Your task to perform on an android device: Open battery settings Image 0: 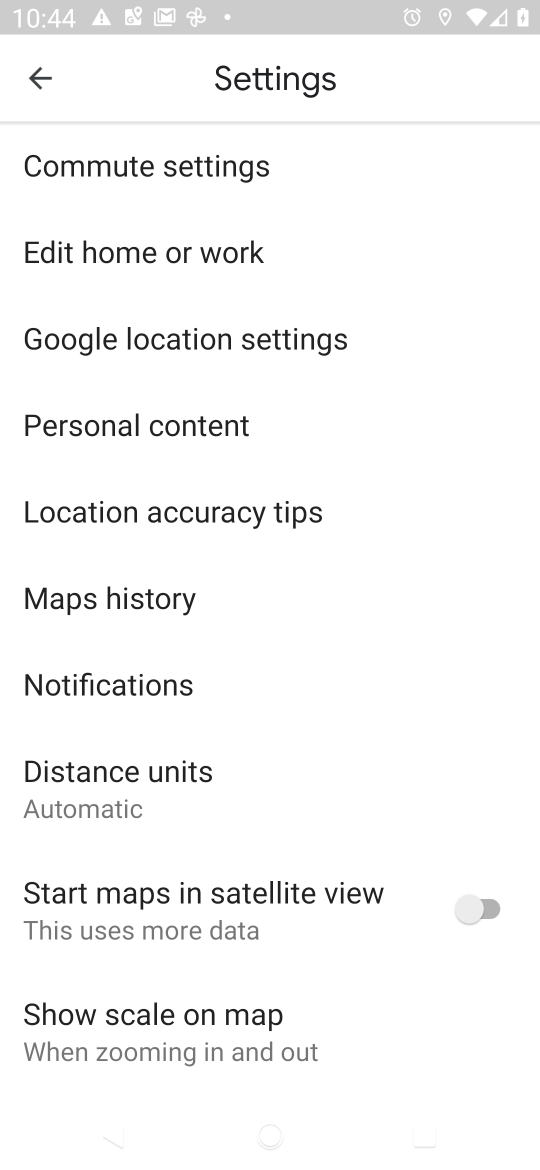
Step 0: press home button
Your task to perform on an android device: Open battery settings Image 1: 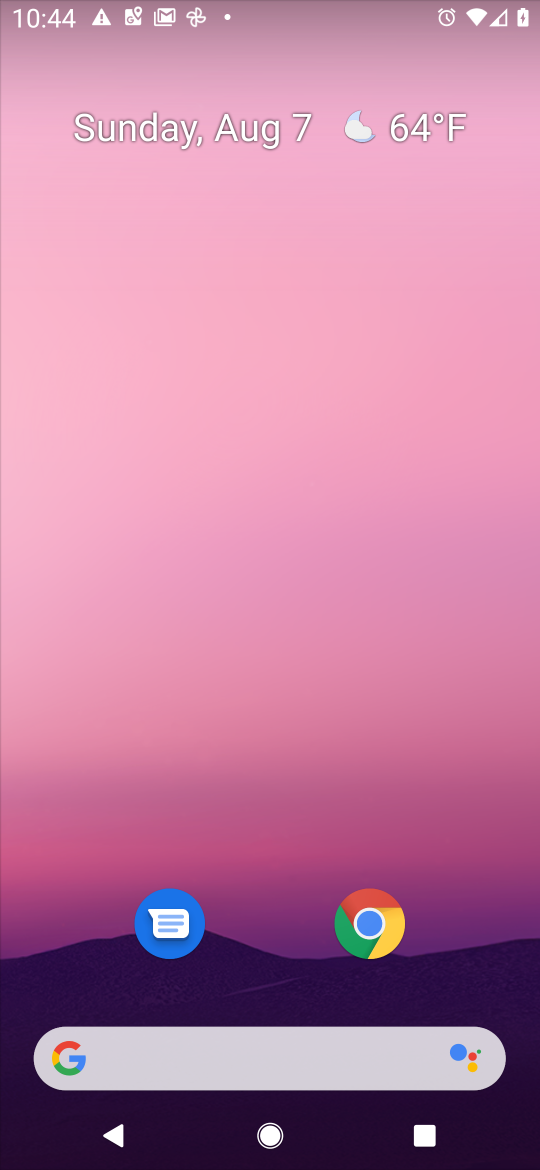
Step 1: drag from (465, 906) to (159, 1)
Your task to perform on an android device: Open battery settings Image 2: 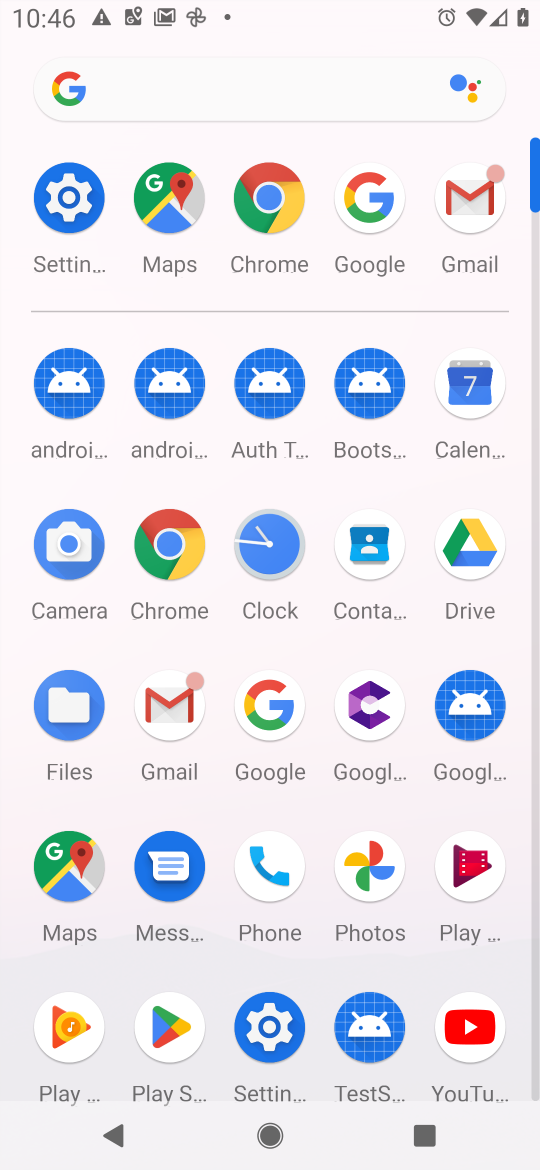
Step 2: click (266, 1050)
Your task to perform on an android device: Open battery settings Image 3: 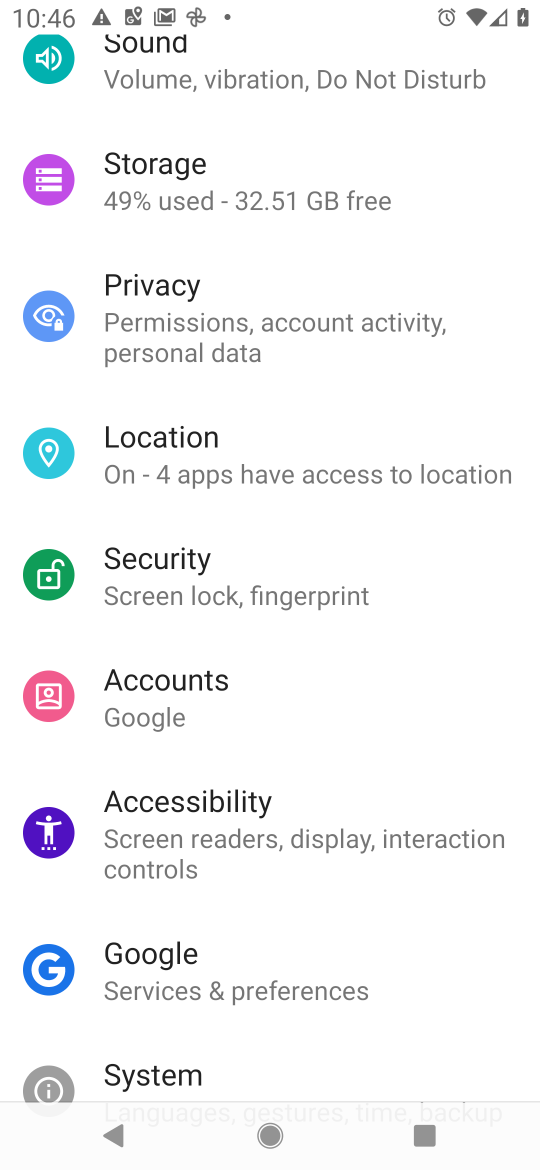
Step 3: drag from (275, 1007) to (178, 256)
Your task to perform on an android device: Open battery settings Image 4: 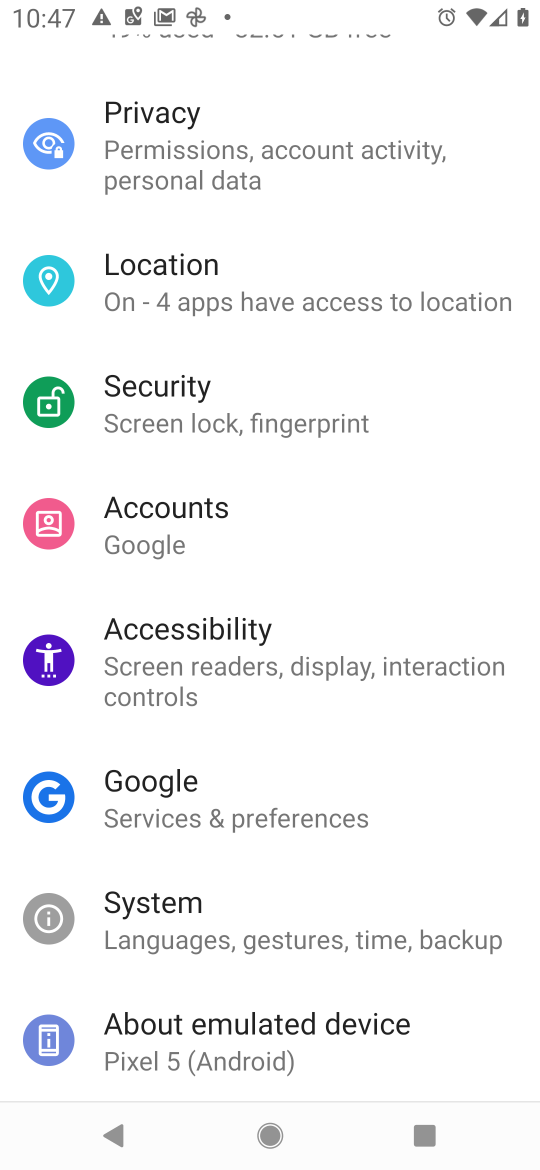
Step 4: drag from (222, 180) to (306, 1096)
Your task to perform on an android device: Open battery settings Image 5: 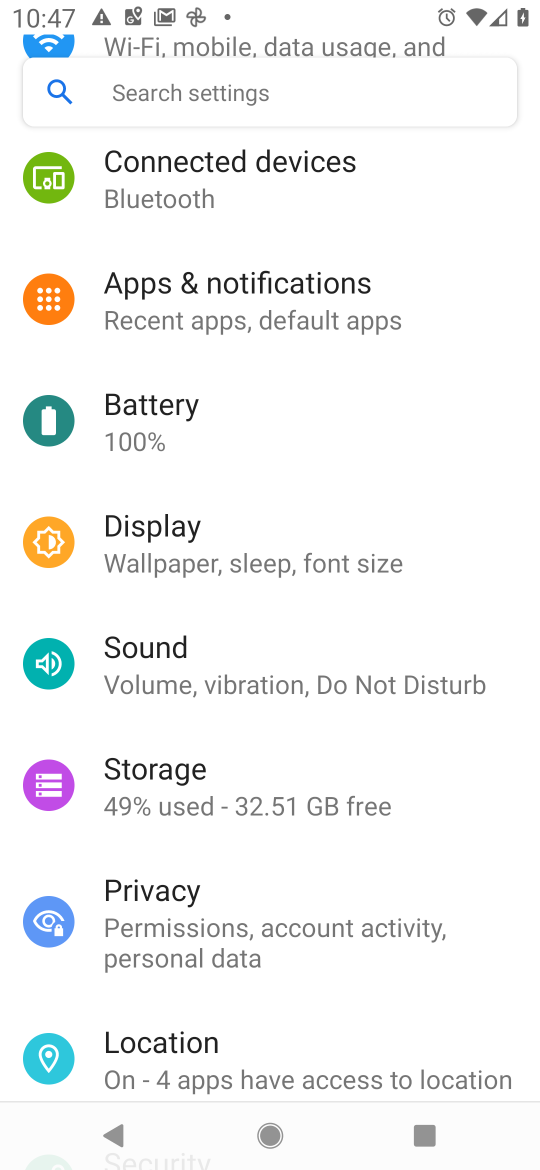
Step 5: click (164, 434)
Your task to perform on an android device: Open battery settings Image 6: 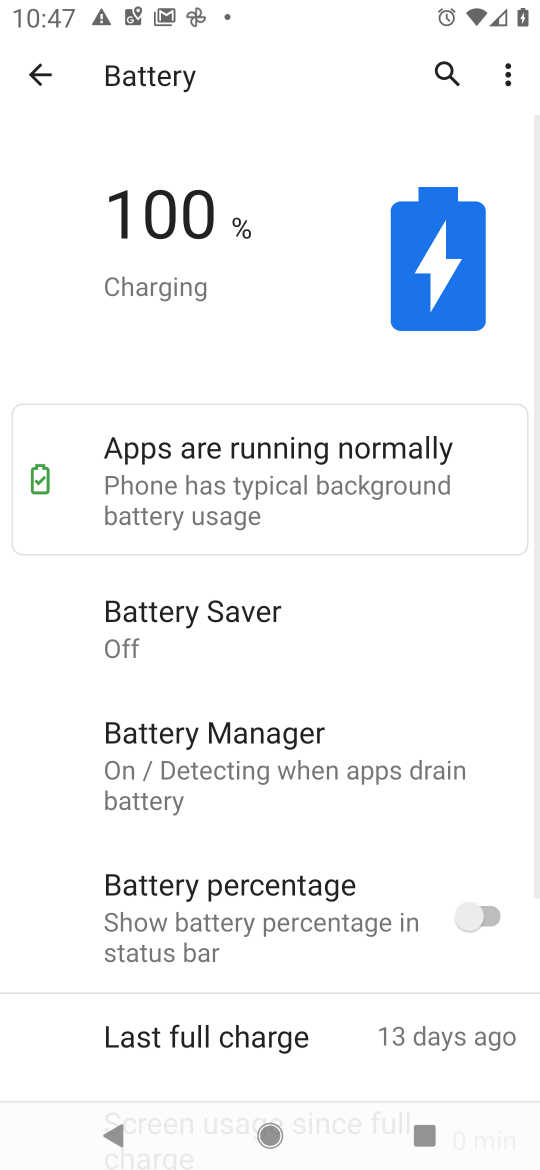
Step 6: task complete